Your task to perform on an android device: Go to Maps Image 0: 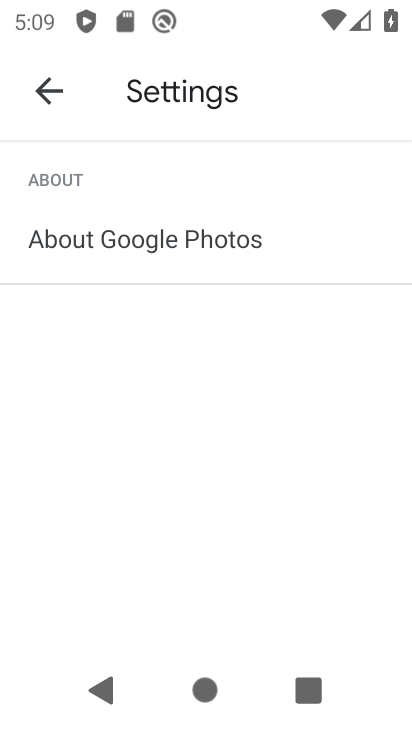
Step 0: press home button
Your task to perform on an android device: Go to Maps Image 1: 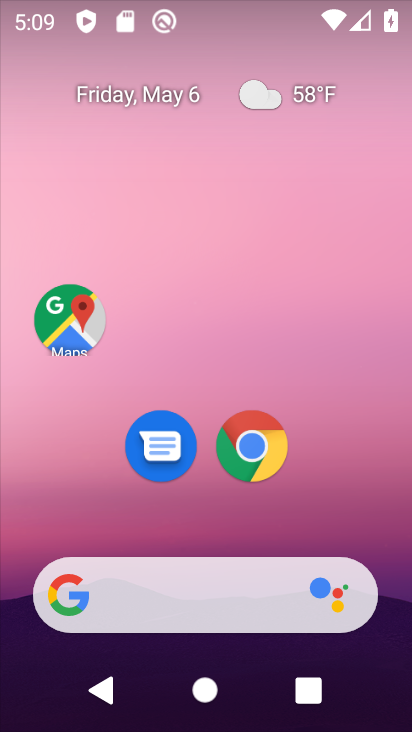
Step 1: click (74, 327)
Your task to perform on an android device: Go to Maps Image 2: 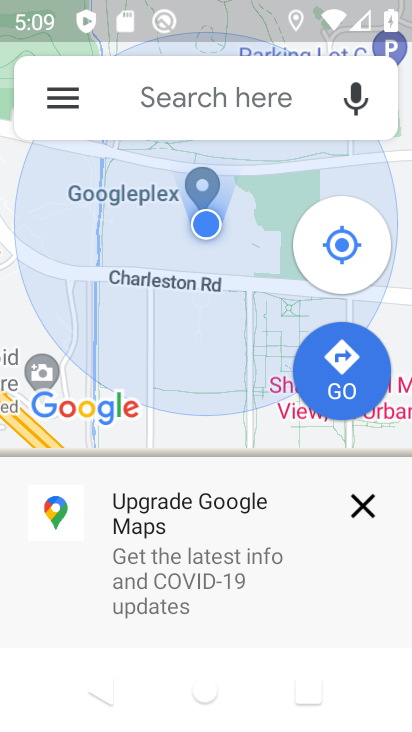
Step 2: click (142, 102)
Your task to perform on an android device: Go to Maps Image 3: 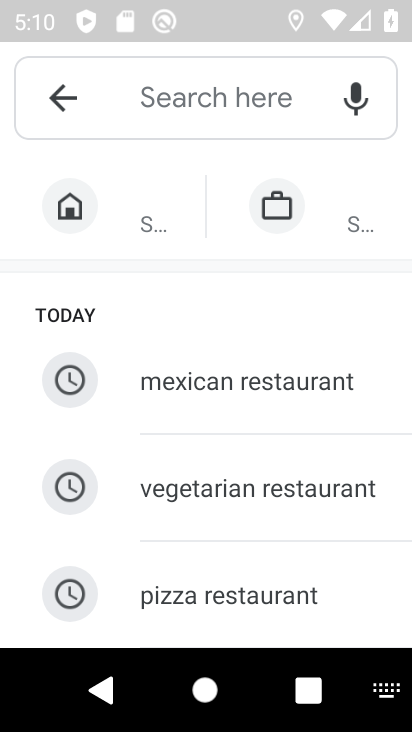
Step 3: click (51, 98)
Your task to perform on an android device: Go to Maps Image 4: 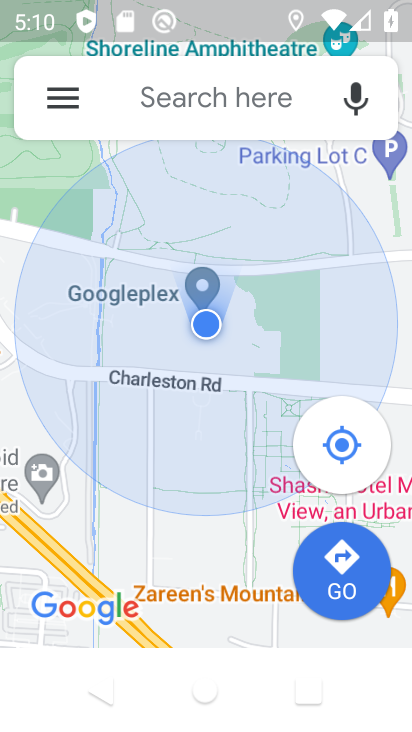
Step 4: task complete